Your task to perform on an android device: turn off notifications in google photos Image 0: 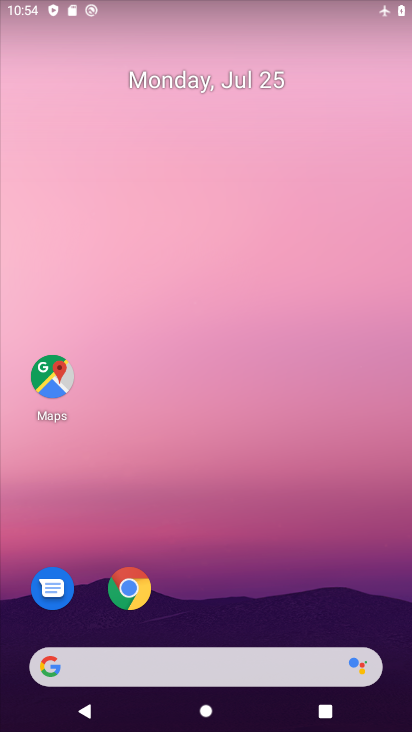
Step 0: drag from (163, 452) to (204, 89)
Your task to perform on an android device: turn off notifications in google photos Image 1: 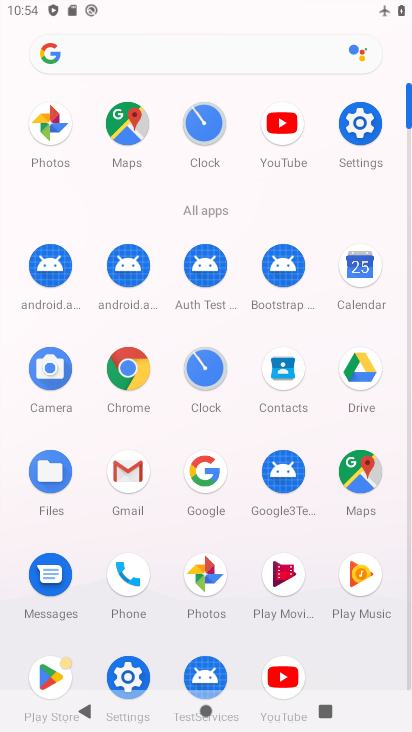
Step 1: click (190, 577)
Your task to perform on an android device: turn off notifications in google photos Image 2: 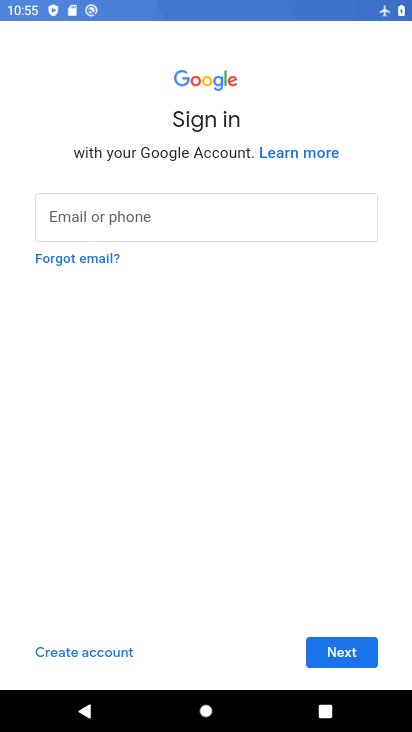
Step 2: task complete